Your task to perform on an android device: Go to internet settings Image 0: 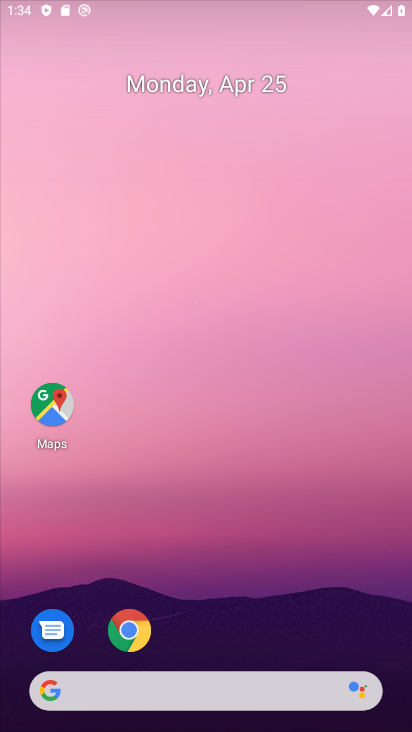
Step 0: press home button
Your task to perform on an android device: Go to internet settings Image 1: 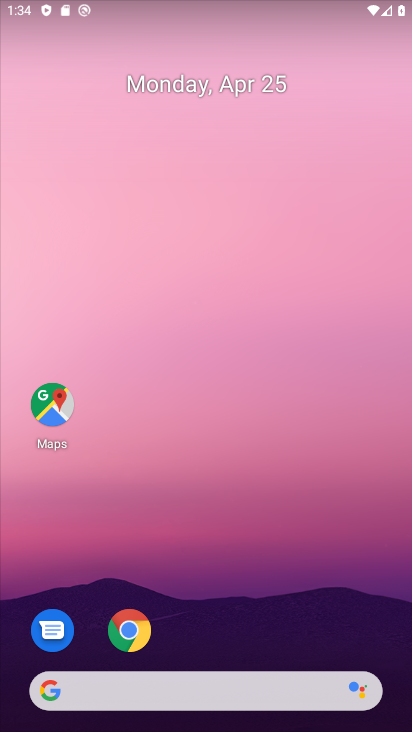
Step 1: drag from (225, 648) to (208, 0)
Your task to perform on an android device: Go to internet settings Image 2: 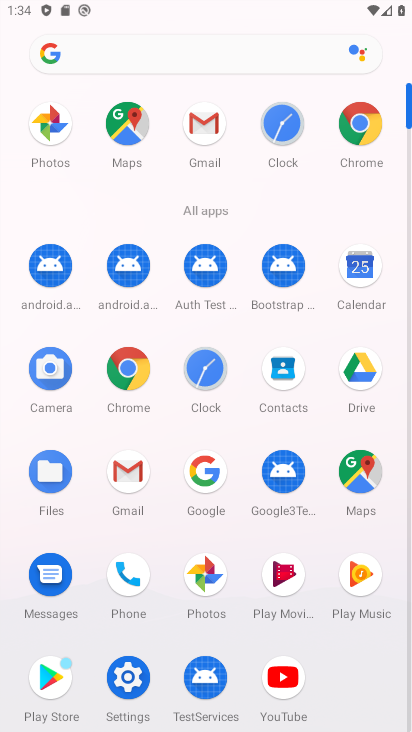
Step 2: click (138, 684)
Your task to perform on an android device: Go to internet settings Image 3: 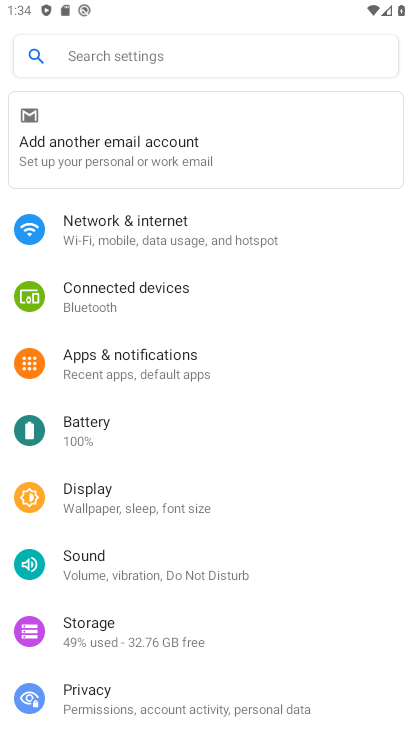
Step 3: click (97, 214)
Your task to perform on an android device: Go to internet settings Image 4: 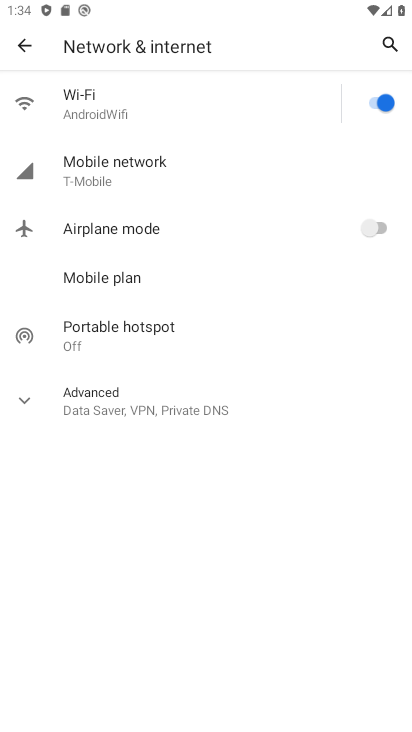
Step 4: click (123, 390)
Your task to perform on an android device: Go to internet settings Image 5: 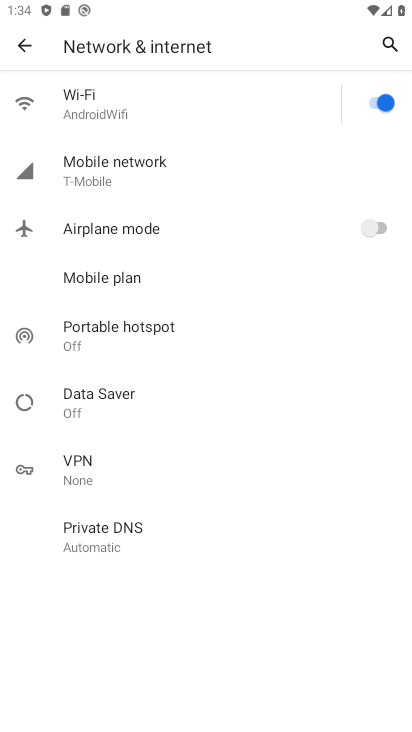
Step 5: task complete